Your task to perform on an android device: open app "Expedia: Hotels, Flights & Car" Image 0: 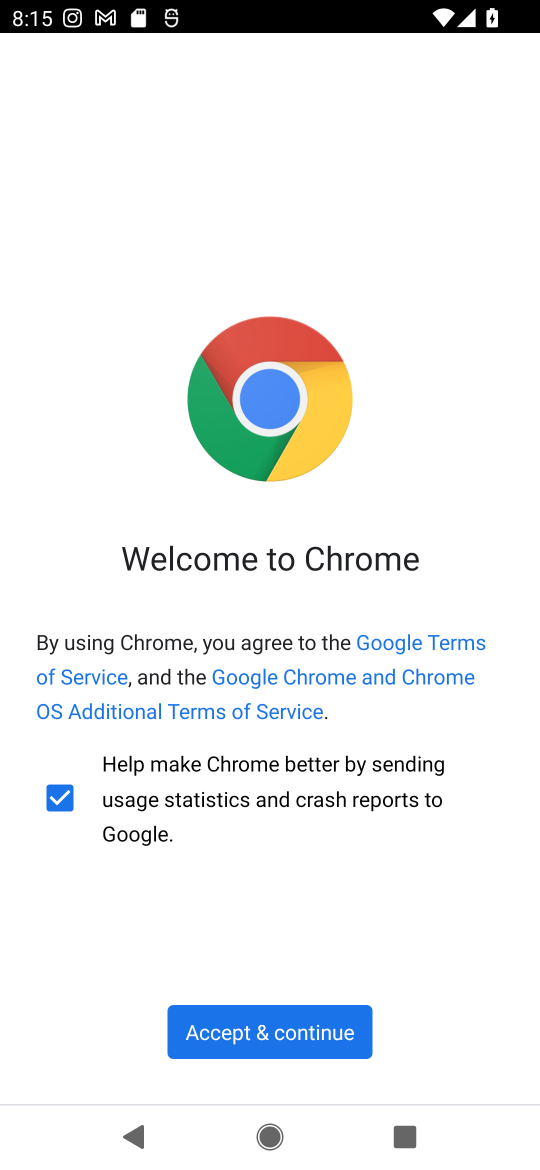
Step 0: press home button
Your task to perform on an android device: open app "Expedia: Hotels, Flights & Car" Image 1: 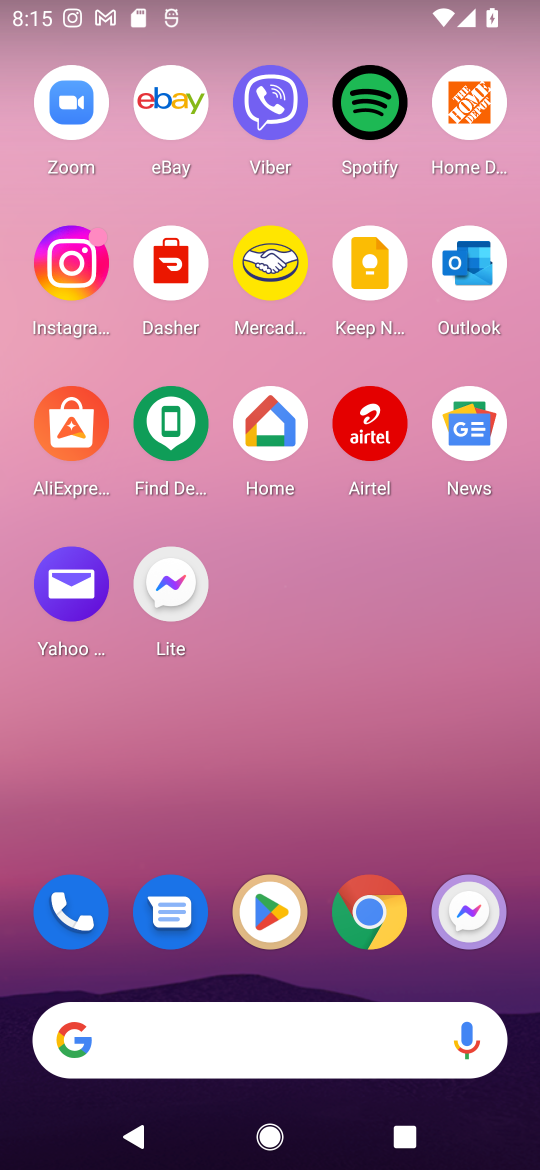
Step 1: click (279, 918)
Your task to perform on an android device: open app "Expedia: Hotels, Flights & Car" Image 2: 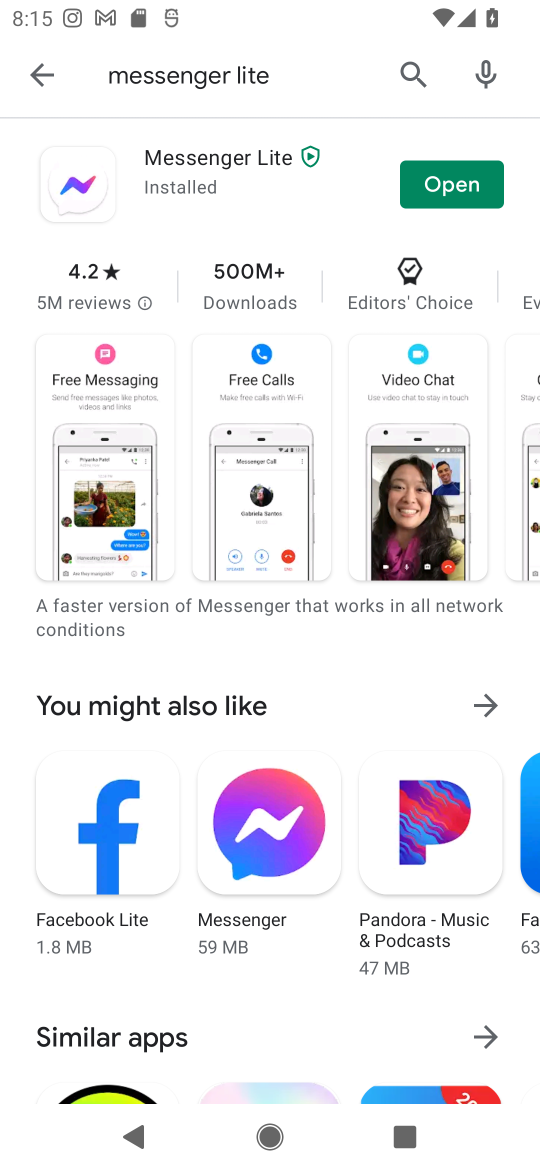
Step 2: click (412, 63)
Your task to perform on an android device: open app "Expedia: Hotels, Flights & Car" Image 3: 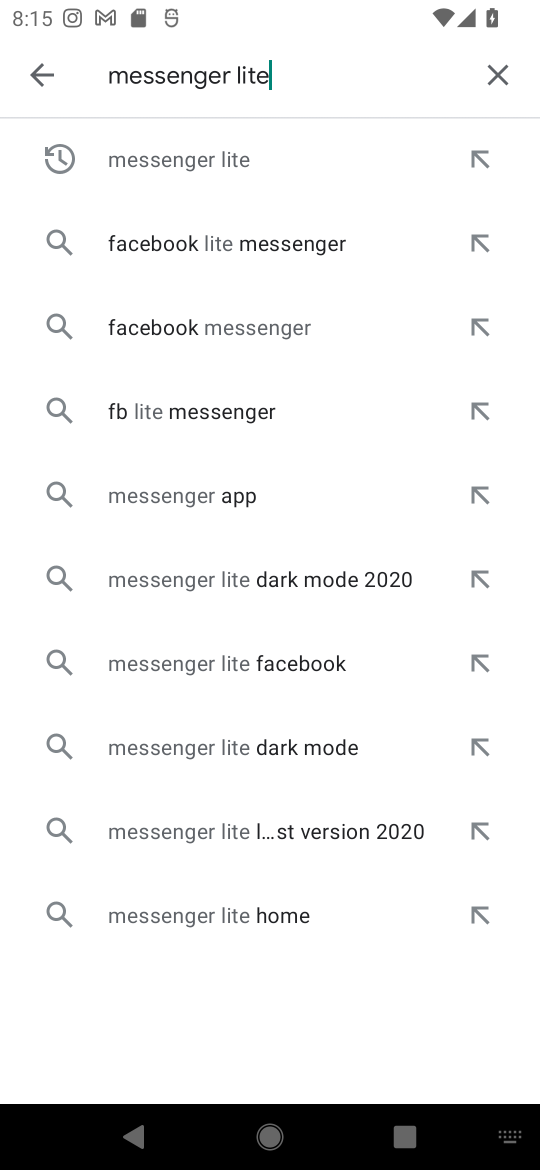
Step 3: click (503, 74)
Your task to perform on an android device: open app "Expedia: Hotels, Flights & Car" Image 4: 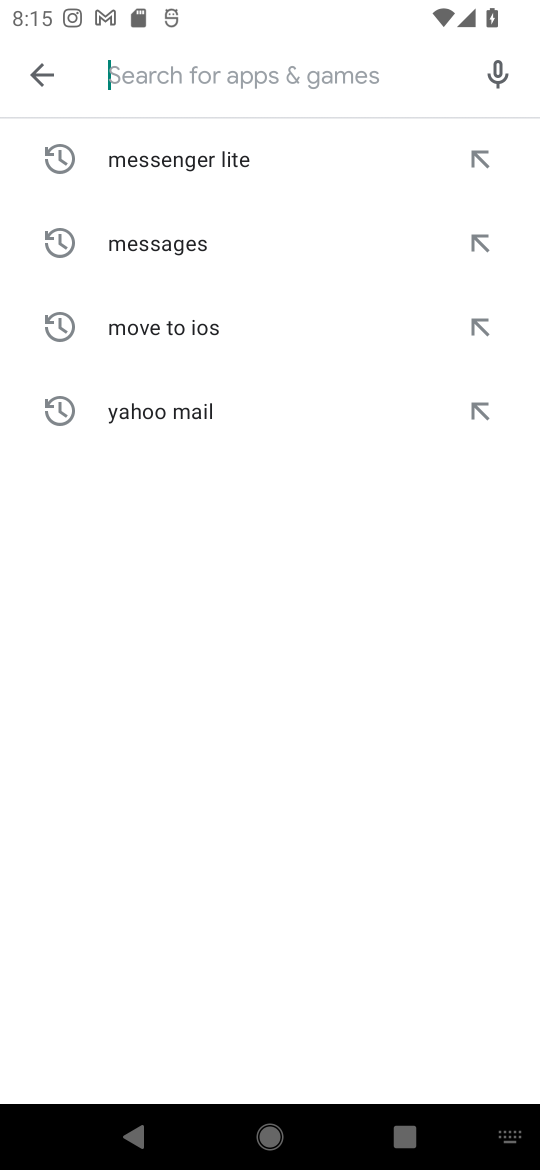
Step 4: type "Expedia: Hotels, Flights & Car"
Your task to perform on an android device: open app "Expedia: Hotels, Flights & Car" Image 5: 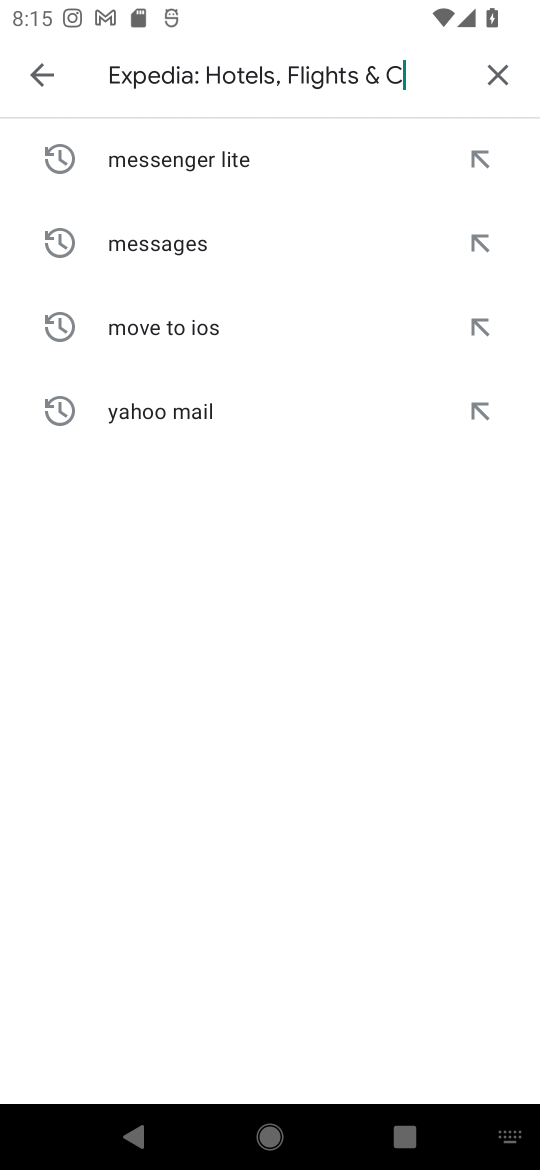
Step 5: type ""
Your task to perform on an android device: open app "Expedia: Hotels, Flights & Car" Image 6: 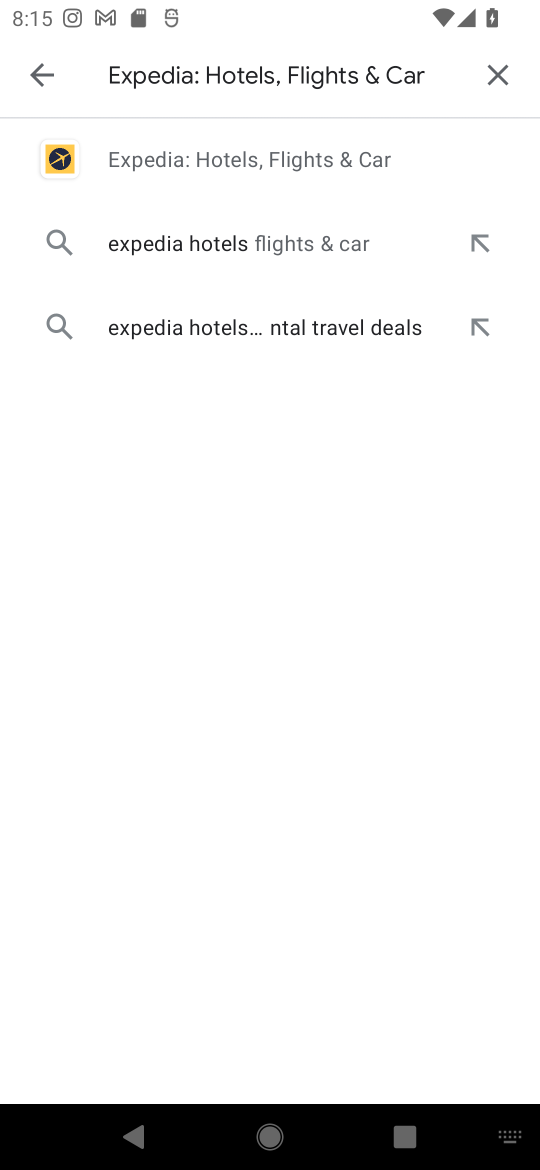
Step 6: click (255, 153)
Your task to perform on an android device: open app "Expedia: Hotels, Flights & Car" Image 7: 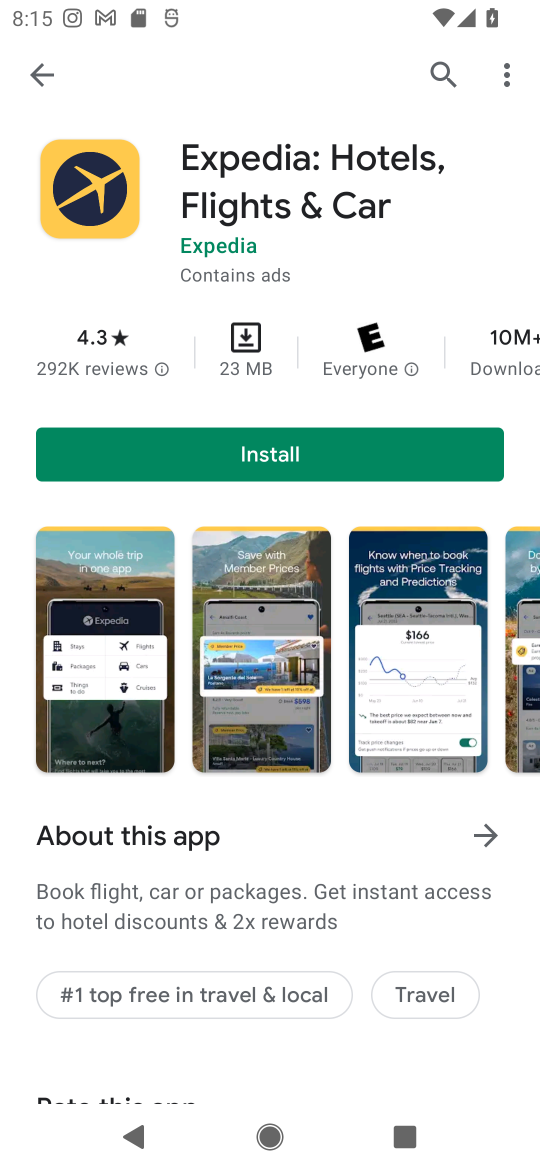
Step 7: task complete